Your task to perform on an android device: visit the assistant section in the google photos Image 0: 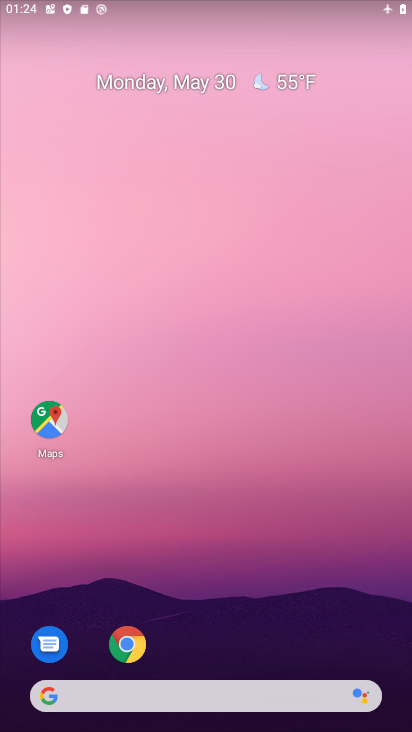
Step 0: drag from (328, 628) to (328, 182)
Your task to perform on an android device: visit the assistant section in the google photos Image 1: 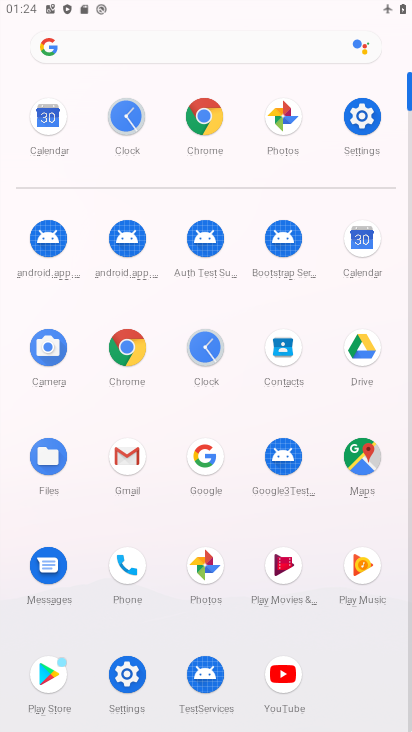
Step 1: click (210, 550)
Your task to perform on an android device: visit the assistant section in the google photos Image 2: 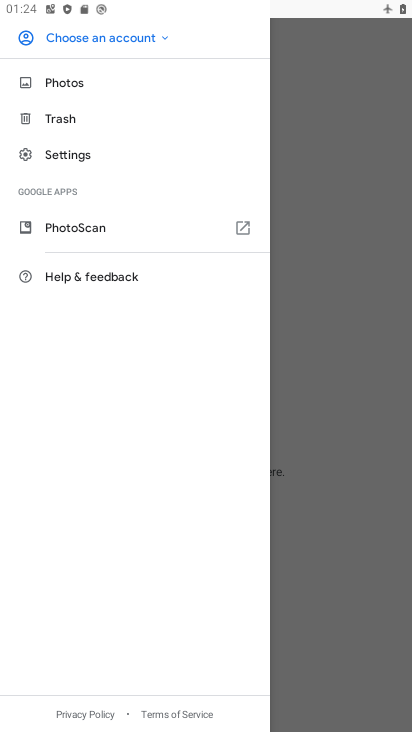
Step 2: click (337, 198)
Your task to perform on an android device: visit the assistant section in the google photos Image 3: 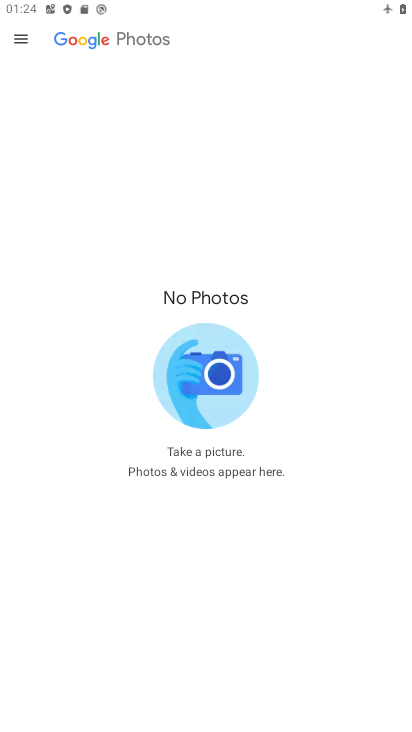
Step 3: click (111, 44)
Your task to perform on an android device: visit the assistant section in the google photos Image 4: 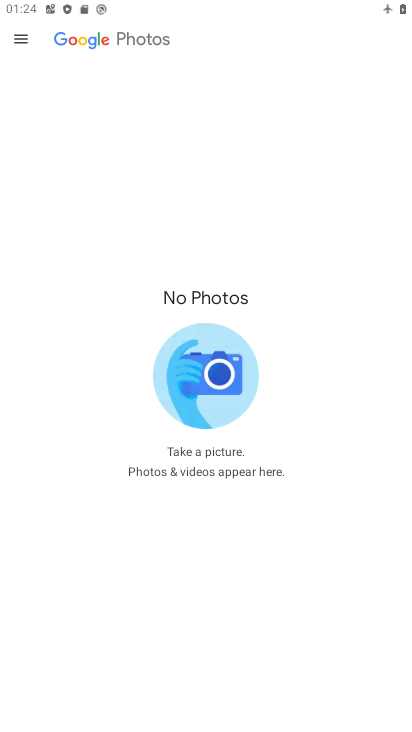
Step 4: click (164, 46)
Your task to perform on an android device: visit the assistant section in the google photos Image 5: 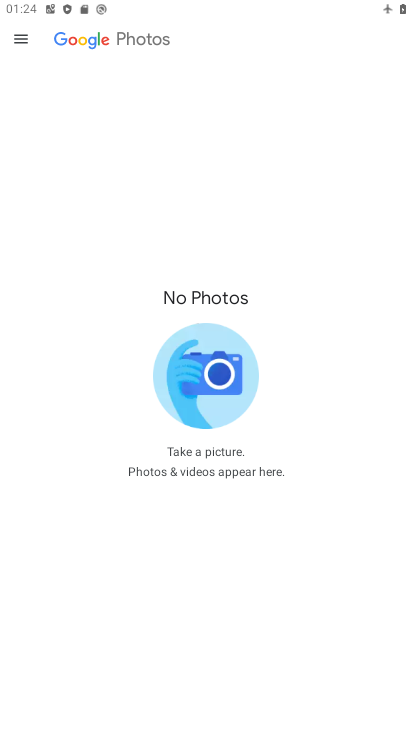
Step 5: click (196, 40)
Your task to perform on an android device: visit the assistant section in the google photos Image 6: 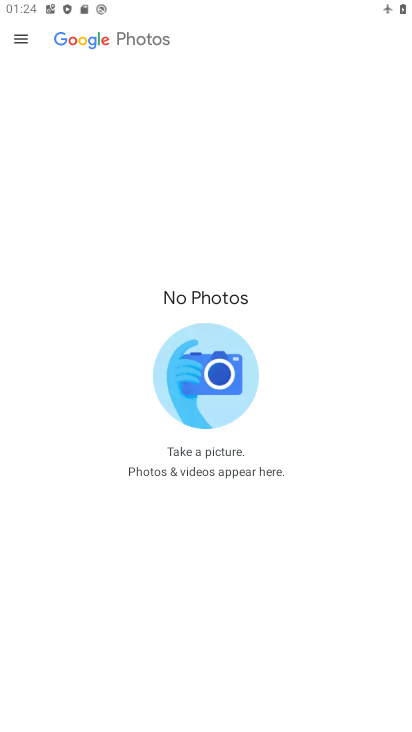
Step 6: task complete